Your task to perform on an android device: add a label to a message in the gmail app Image 0: 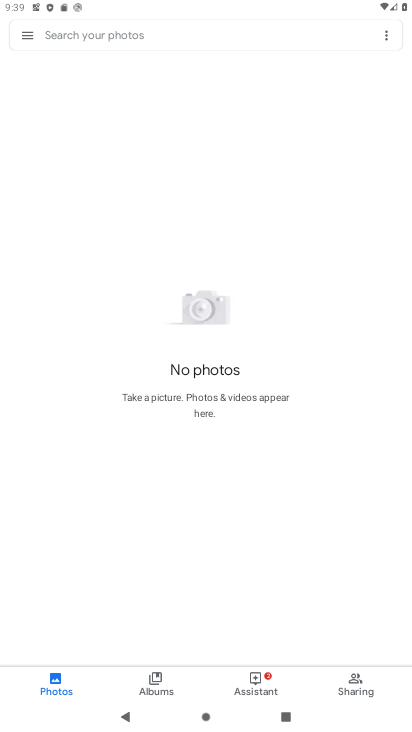
Step 0: task complete